Your task to perform on an android device: What is the recent news? Image 0: 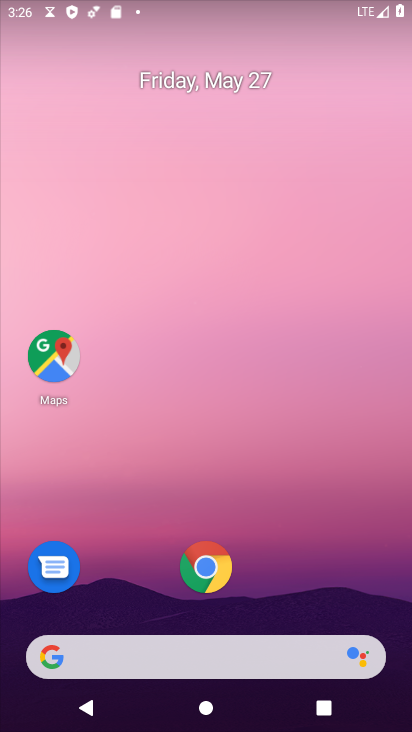
Step 0: click (137, 656)
Your task to perform on an android device: What is the recent news? Image 1: 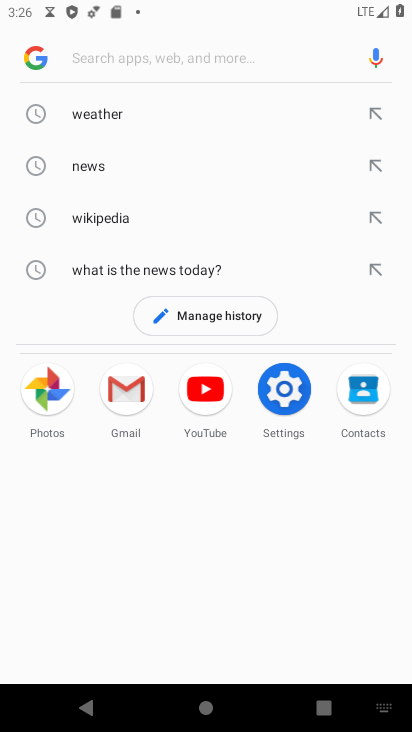
Step 1: click (116, 54)
Your task to perform on an android device: What is the recent news? Image 2: 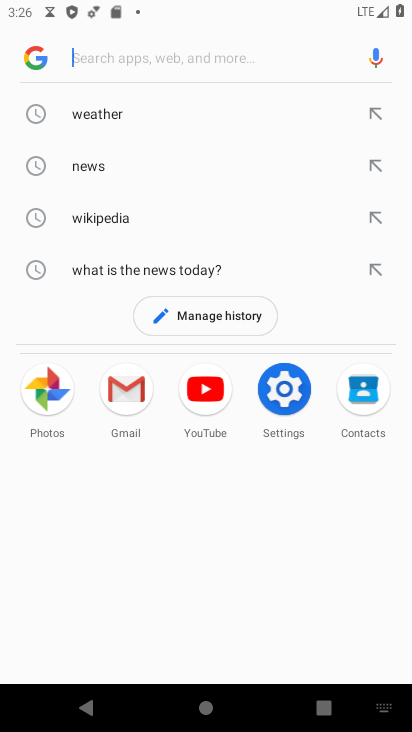
Step 2: type "recent news"
Your task to perform on an android device: What is the recent news? Image 3: 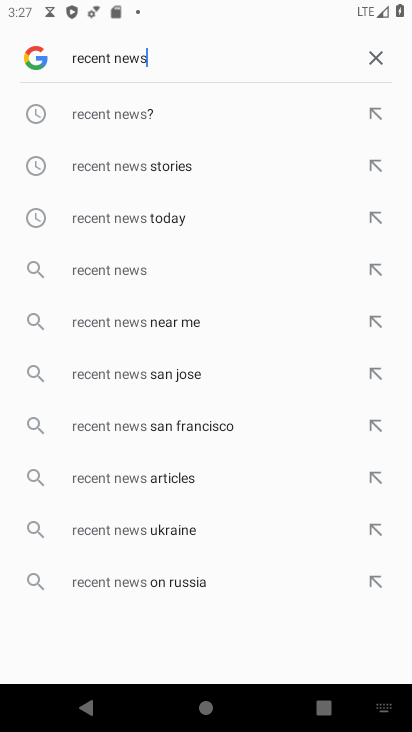
Step 3: click (147, 111)
Your task to perform on an android device: What is the recent news? Image 4: 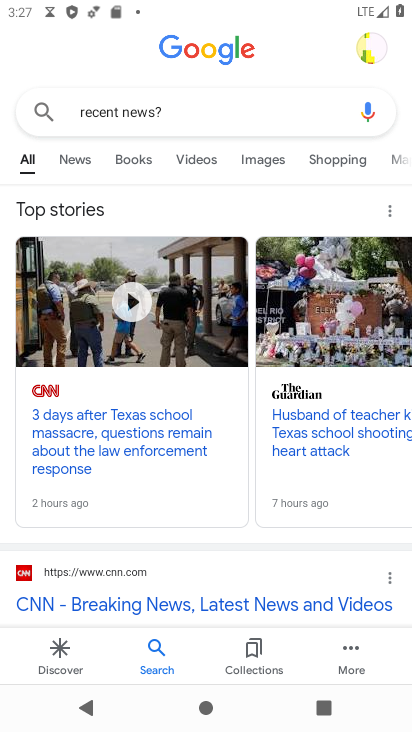
Step 4: task complete